Your task to perform on an android device: Search for vegetarian restaurants on Maps Image 0: 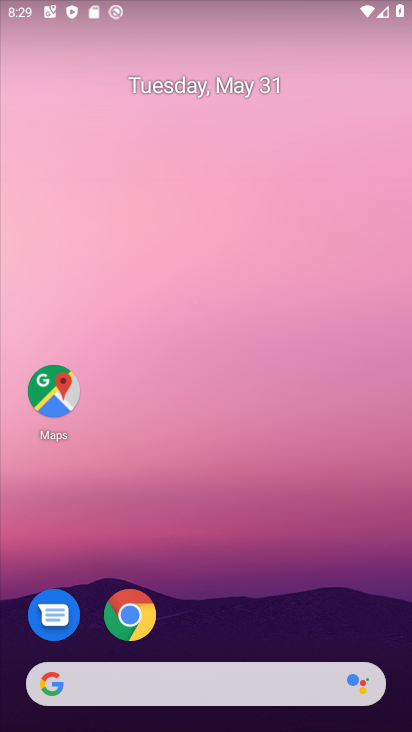
Step 0: click (55, 390)
Your task to perform on an android device: Search for vegetarian restaurants on Maps Image 1: 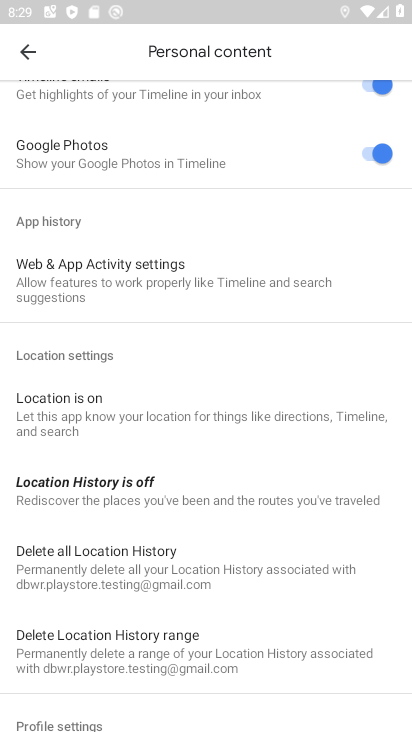
Step 1: press back button
Your task to perform on an android device: Search for vegetarian restaurants on Maps Image 2: 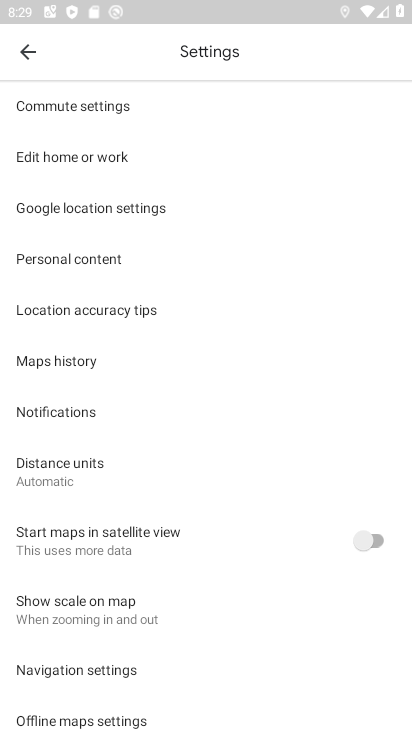
Step 2: press back button
Your task to perform on an android device: Search for vegetarian restaurants on Maps Image 3: 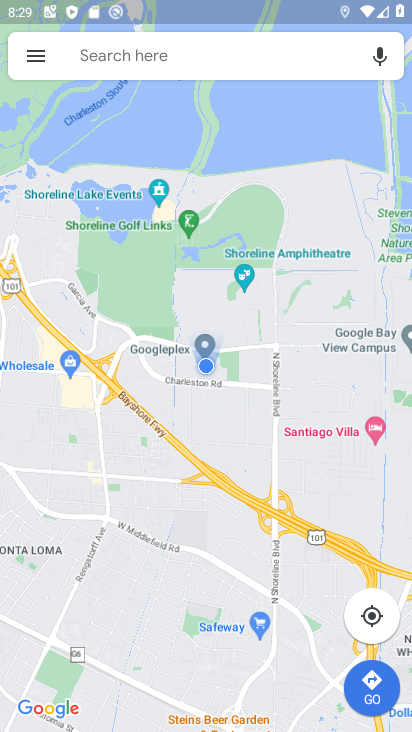
Step 3: click (128, 49)
Your task to perform on an android device: Search for vegetarian restaurants on Maps Image 4: 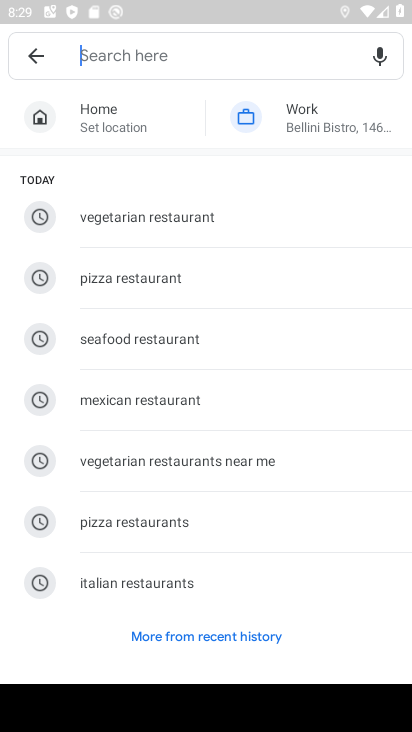
Step 4: type "vegetarian restaurants"
Your task to perform on an android device: Search for vegetarian restaurants on Maps Image 5: 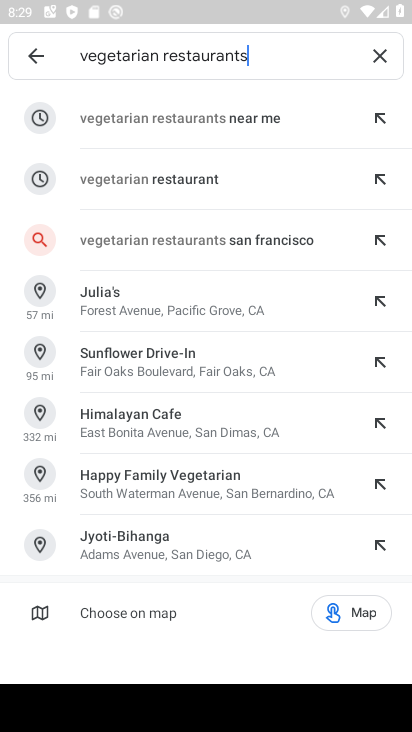
Step 5: click (151, 194)
Your task to perform on an android device: Search for vegetarian restaurants on Maps Image 6: 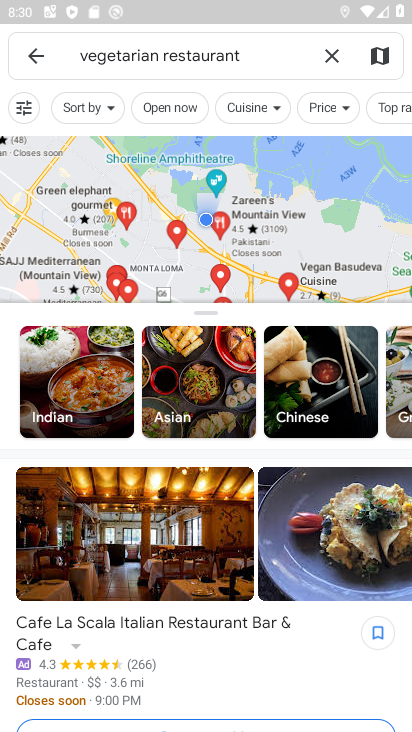
Step 6: task complete